Your task to perform on an android device: Open calendar and show me the fourth week of next month Image 0: 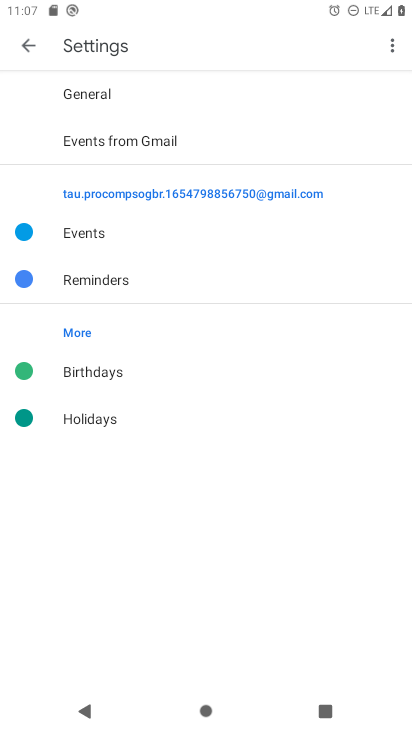
Step 0: press home button
Your task to perform on an android device: Open calendar and show me the fourth week of next month Image 1: 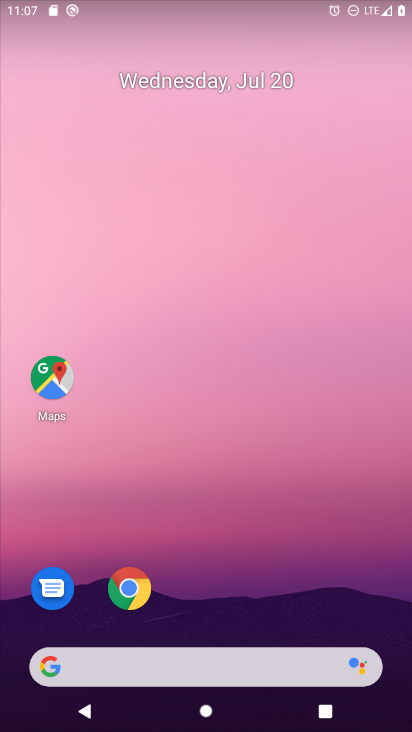
Step 1: click (172, 84)
Your task to perform on an android device: Open calendar and show me the fourth week of next month Image 2: 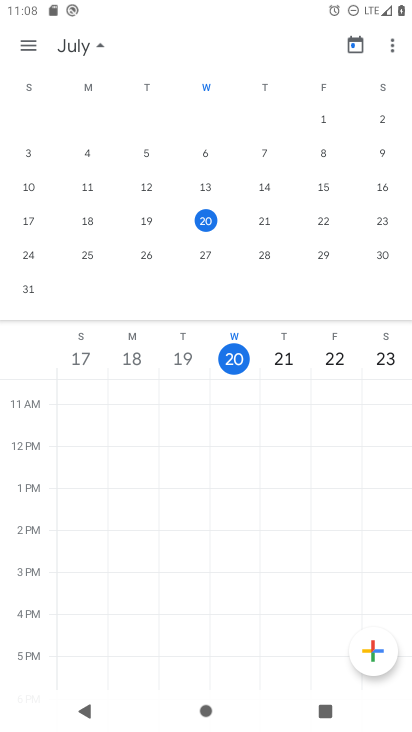
Step 2: drag from (349, 296) to (35, 286)
Your task to perform on an android device: Open calendar and show me the fourth week of next month Image 3: 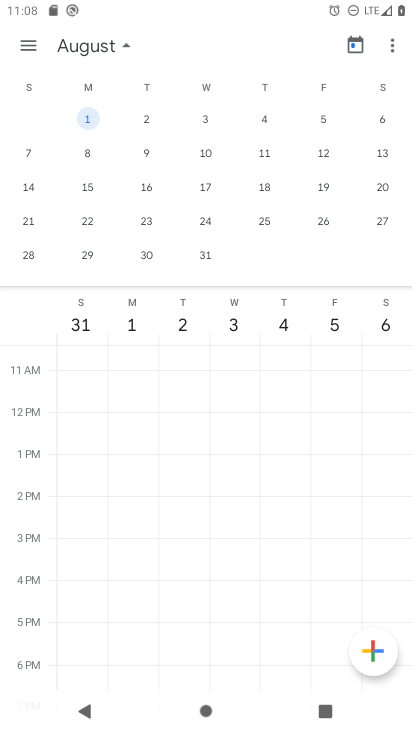
Step 3: click (216, 227)
Your task to perform on an android device: Open calendar and show me the fourth week of next month Image 4: 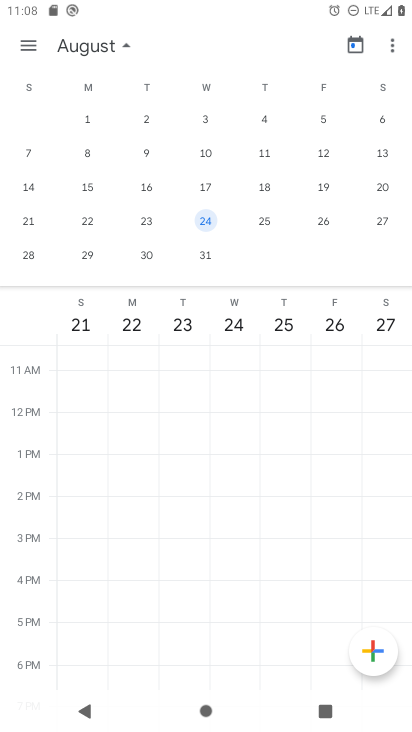
Step 4: task complete